Your task to perform on an android device: Go to accessibility settings Image 0: 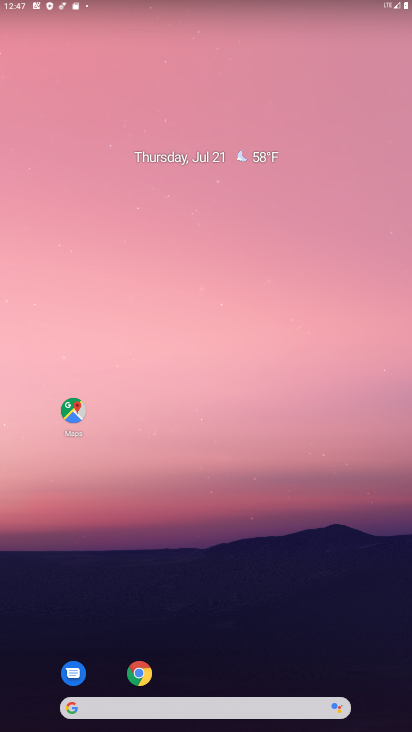
Step 0: drag from (219, 633) to (222, 206)
Your task to perform on an android device: Go to accessibility settings Image 1: 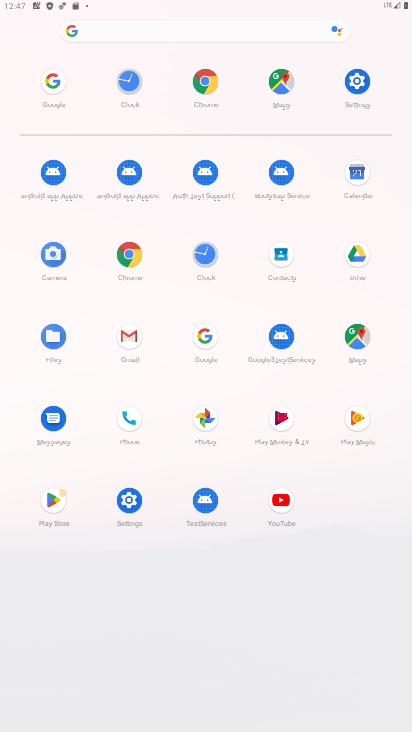
Step 1: click (351, 83)
Your task to perform on an android device: Go to accessibility settings Image 2: 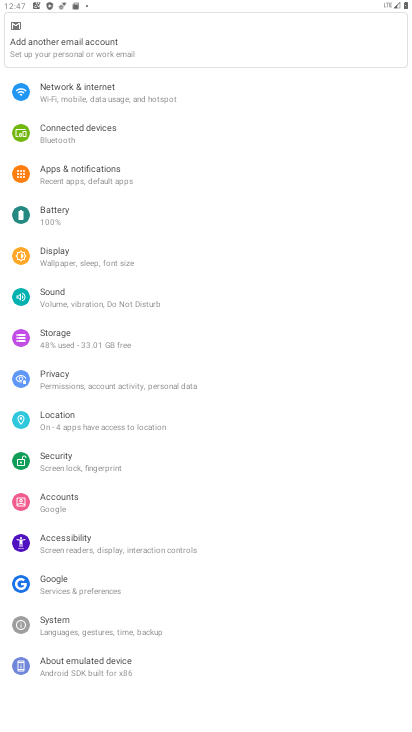
Step 2: click (78, 528)
Your task to perform on an android device: Go to accessibility settings Image 3: 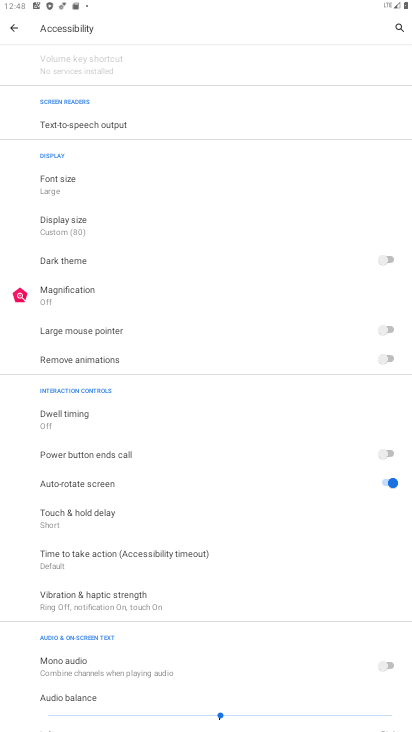
Step 3: task complete